Your task to perform on an android device: check google app version Image 0: 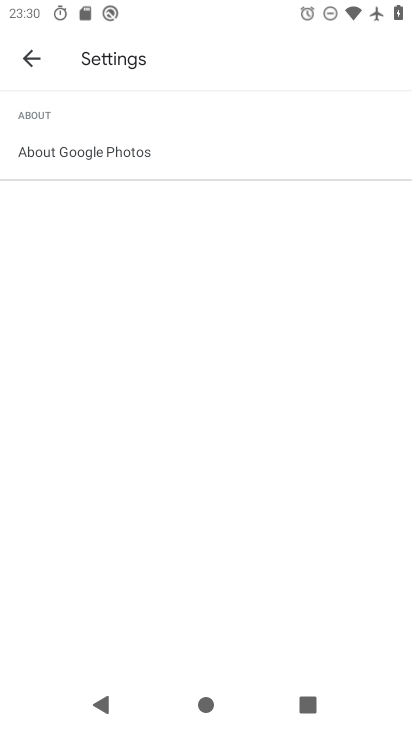
Step 0: press home button
Your task to perform on an android device: check google app version Image 1: 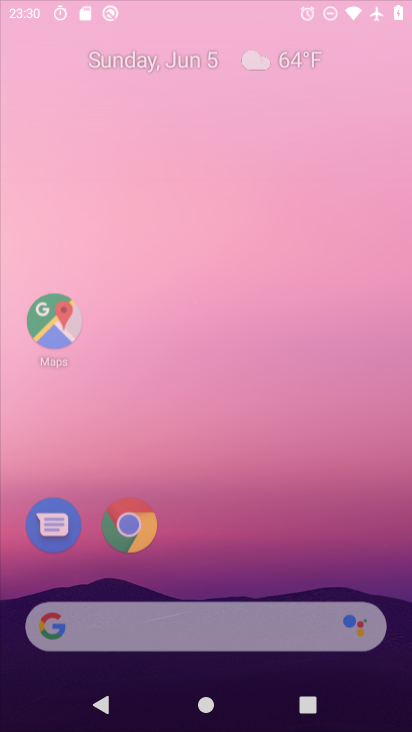
Step 1: drag from (223, 637) to (353, 158)
Your task to perform on an android device: check google app version Image 2: 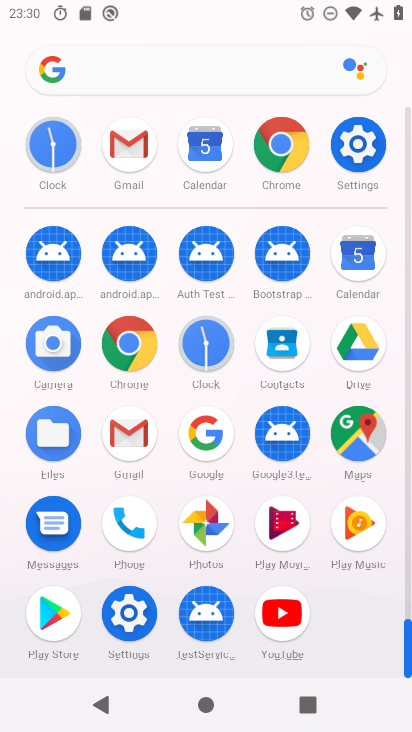
Step 2: click (198, 422)
Your task to perform on an android device: check google app version Image 3: 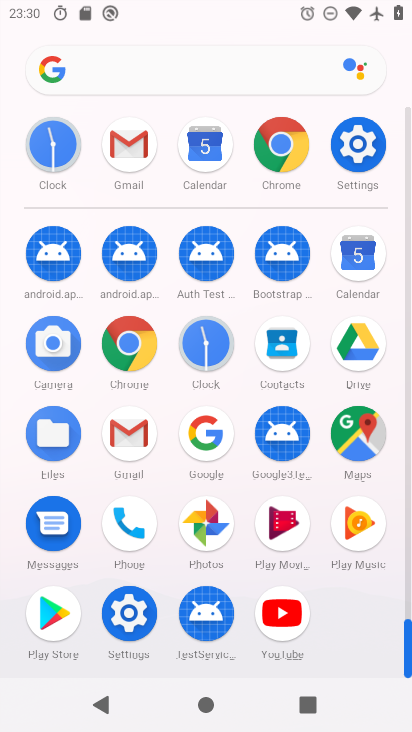
Step 3: click (197, 423)
Your task to perform on an android device: check google app version Image 4: 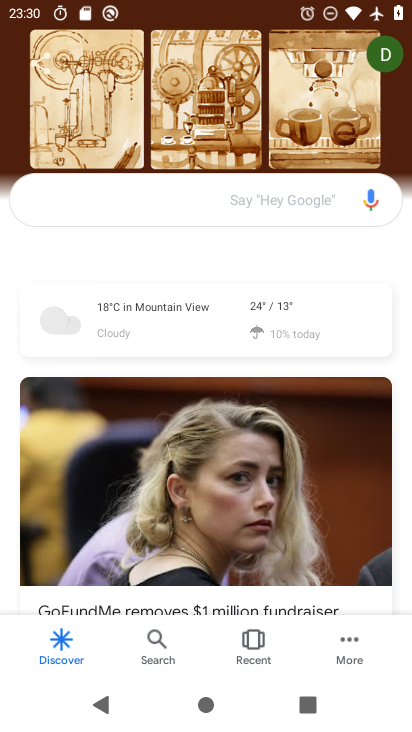
Step 4: click (356, 651)
Your task to perform on an android device: check google app version Image 5: 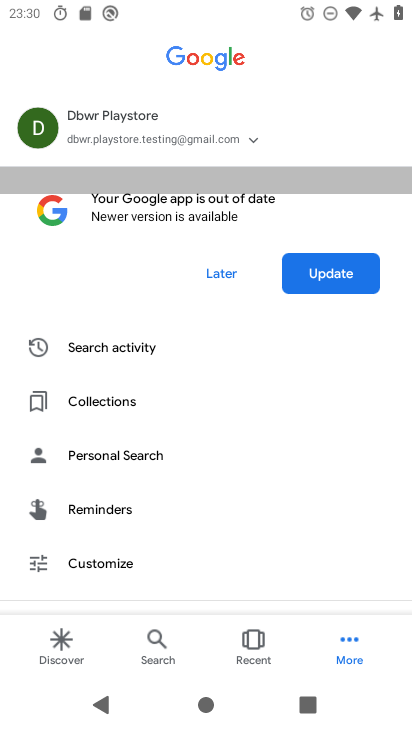
Step 5: drag from (263, 560) to (255, 0)
Your task to perform on an android device: check google app version Image 6: 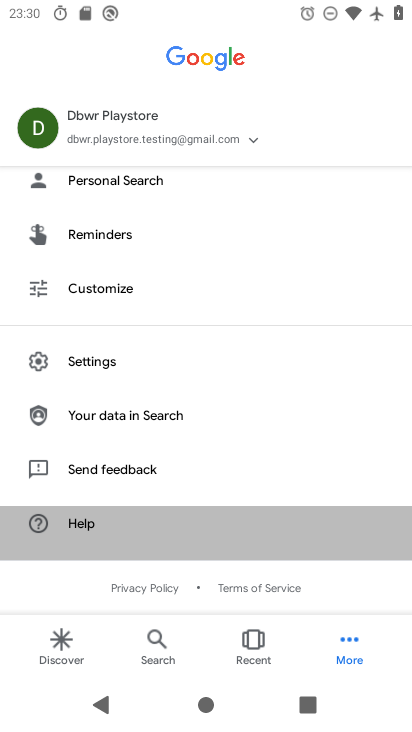
Step 6: click (86, 367)
Your task to perform on an android device: check google app version Image 7: 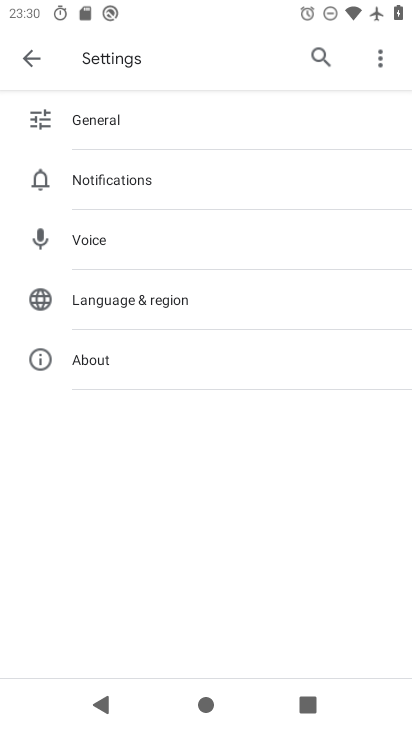
Step 7: click (88, 363)
Your task to perform on an android device: check google app version Image 8: 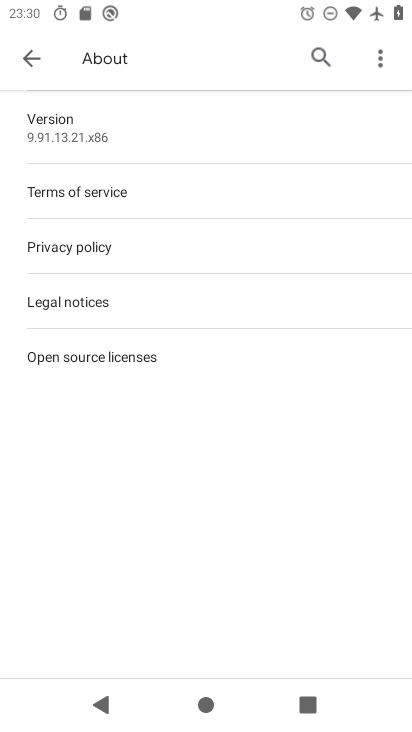
Step 8: click (182, 124)
Your task to perform on an android device: check google app version Image 9: 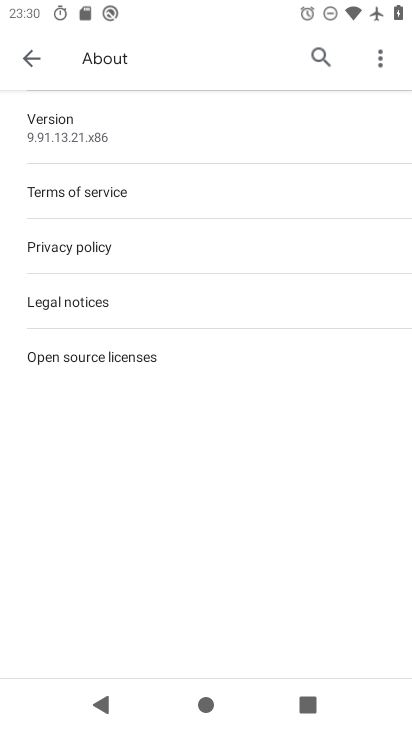
Step 9: task complete